Your task to perform on an android device: delete a single message in the gmail app Image 0: 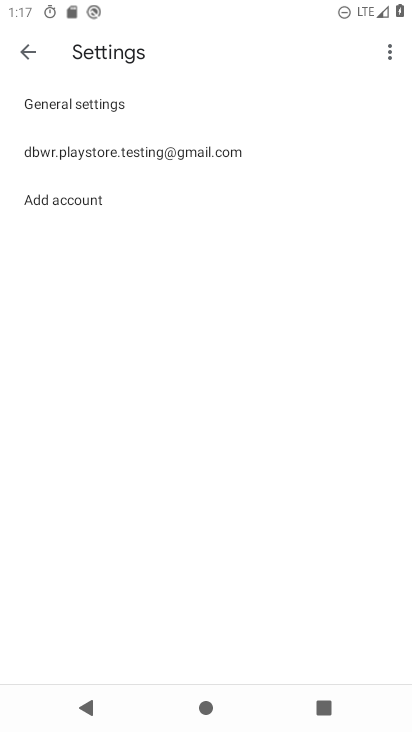
Step 0: press home button
Your task to perform on an android device: delete a single message in the gmail app Image 1: 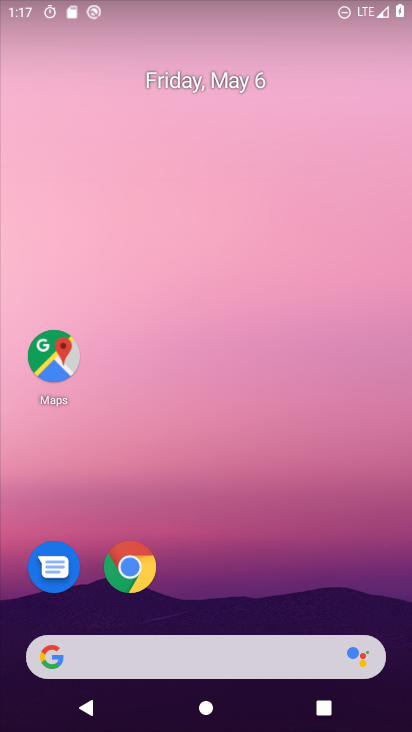
Step 1: drag from (290, 605) to (298, 3)
Your task to perform on an android device: delete a single message in the gmail app Image 2: 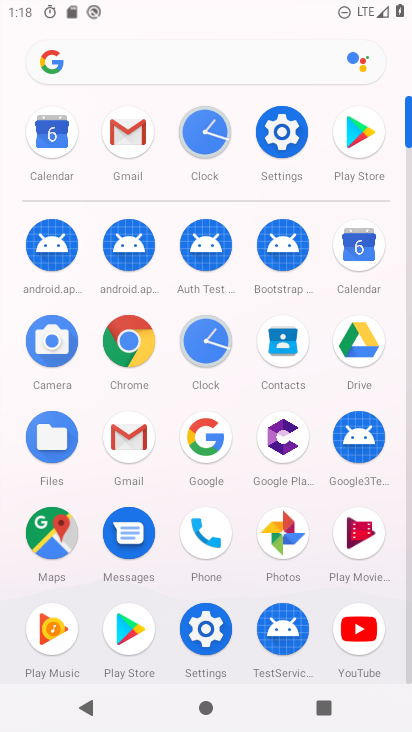
Step 2: click (122, 145)
Your task to perform on an android device: delete a single message in the gmail app Image 3: 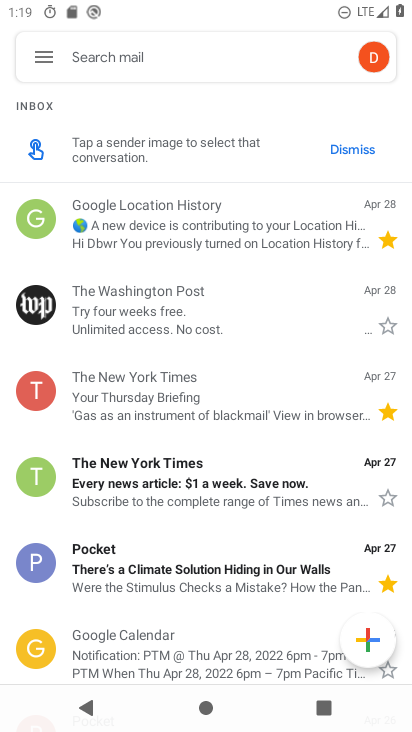
Step 3: click (118, 329)
Your task to perform on an android device: delete a single message in the gmail app Image 4: 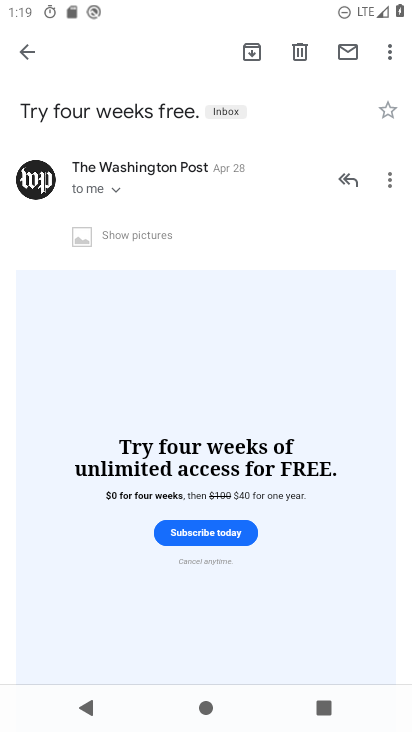
Step 4: click (296, 56)
Your task to perform on an android device: delete a single message in the gmail app Image 5: 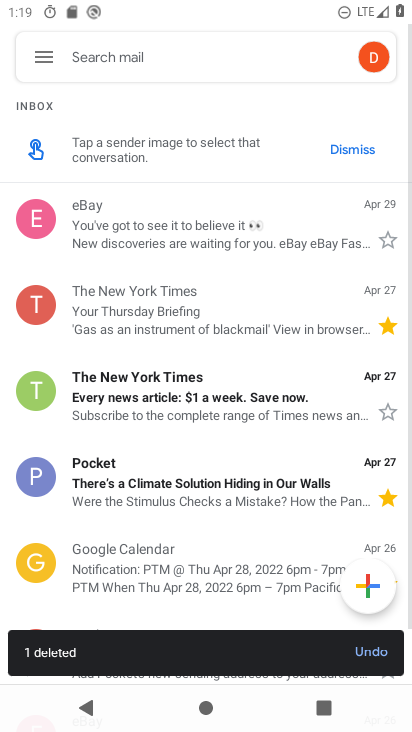
Step 5: task complete